Your task to perform on an android device: change the clock display to digital Image 0: 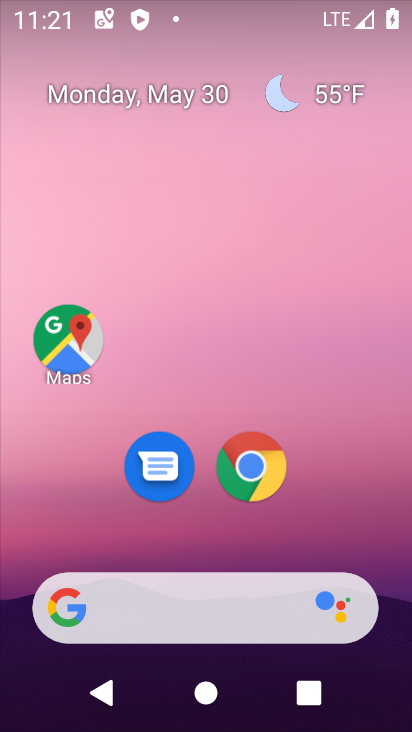
Step 0: drag from (387, 511) to (385, 2)
Your task to perform on an android device: change the clock display to digital Image 1: 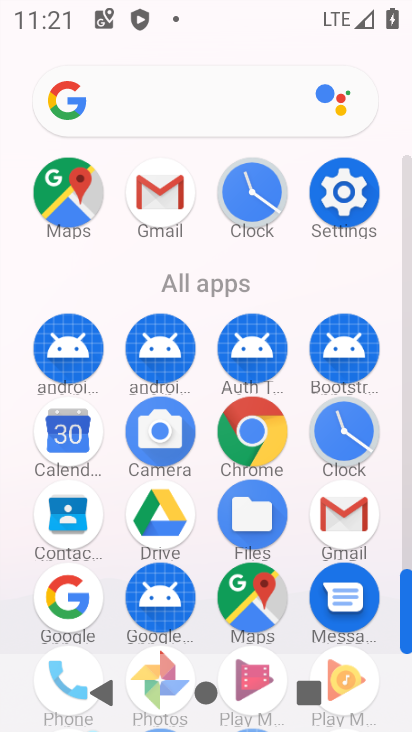
Step 1: click (268, 184)
Your task to perform on an android device: change the clock display to digital Image 2: 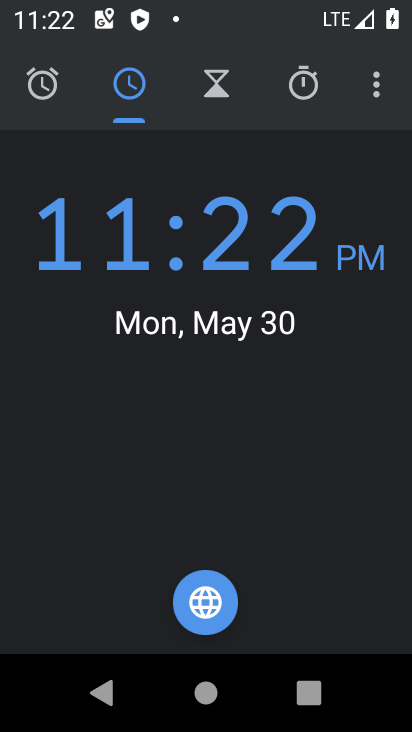
Step 2: click (377, 107)
Your task to perform on an android device: change the clock display to digital Image 3: 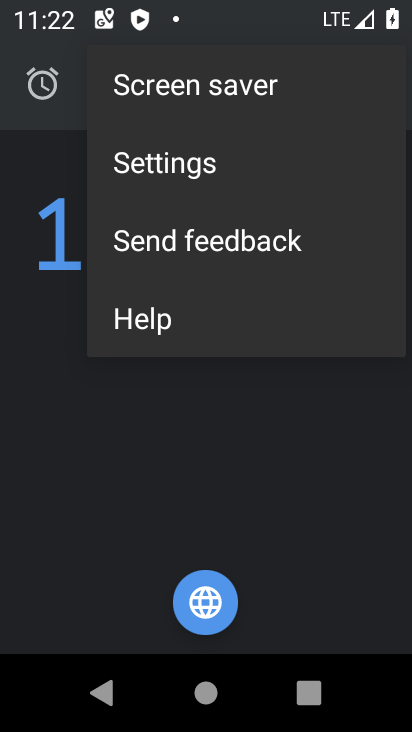
Step 3: click (317, 152)
Your task to perform on an android device: change the clock display to digital Image 4: 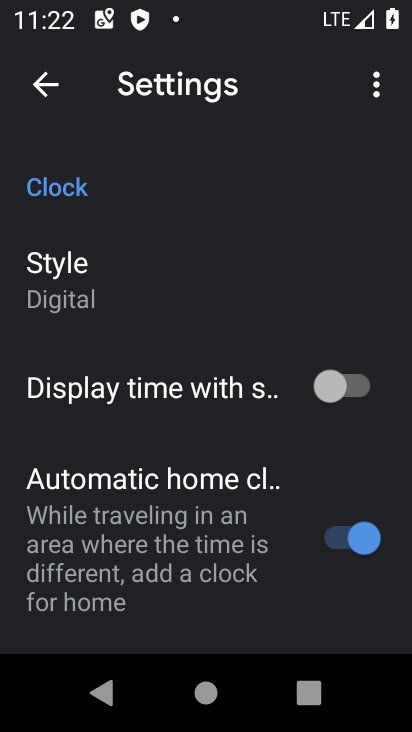
Step 4: task complete